Your task to perform on an android device: check storage Image 0: 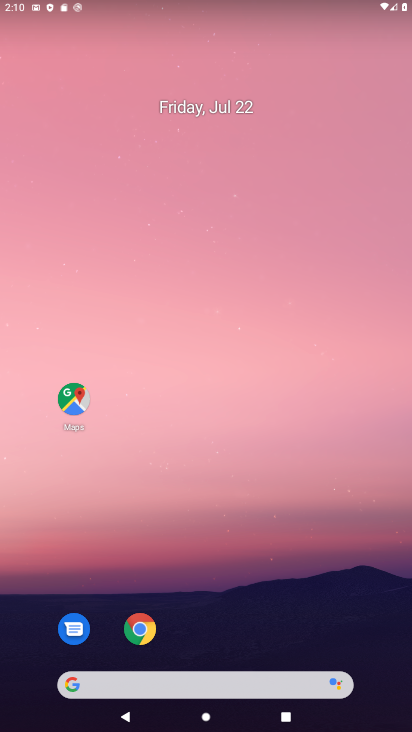
Step 0: drag from (228, 636) to (219, 175)
Your task to perform on an android device: check storage Image 1: 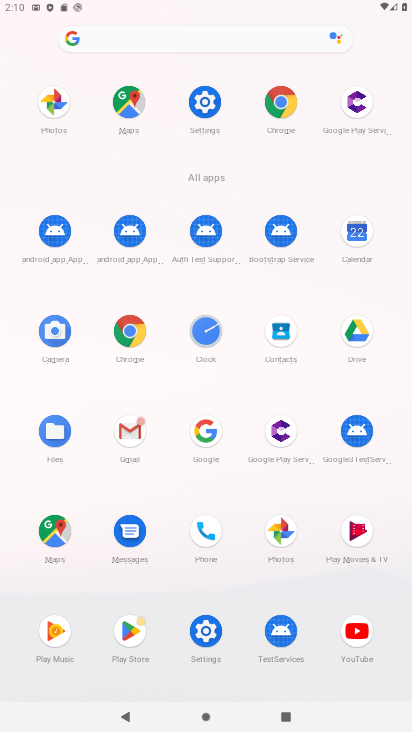
Step 1: click (200, 93)
Your task to perform on an android device: check storage Image 2: 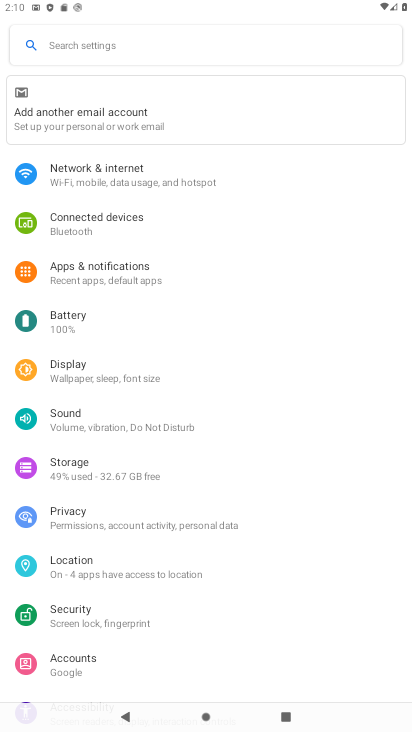
Step 2: click (83, 479)
Your task to perform on an android device: check storage Image 3: 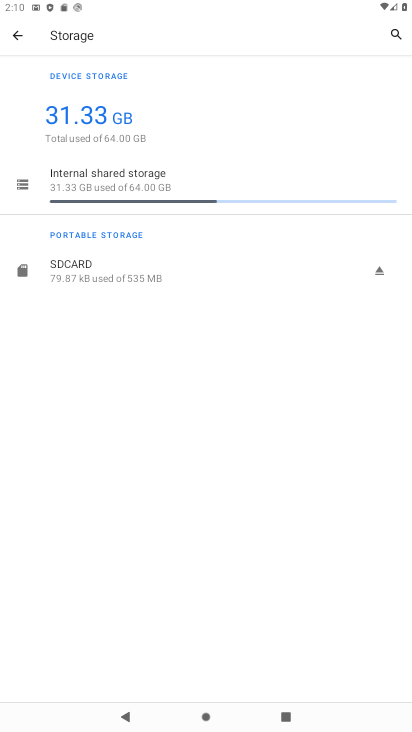
Step 3: task complete